Your task to perform on an android device: toggle javascript in the chrome app Image 0: 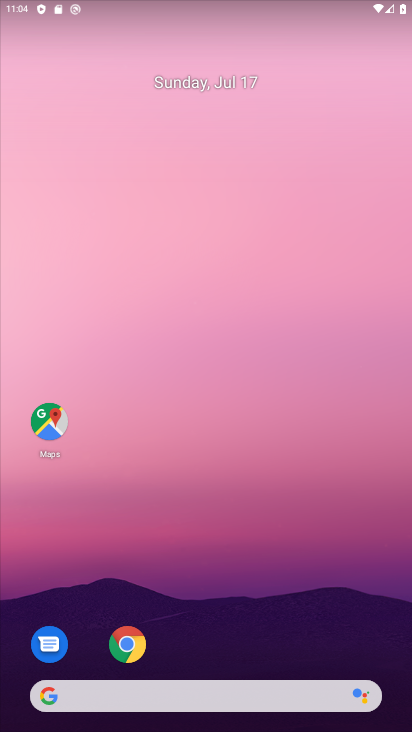
Step 0: drag from (256, 417) to (250, 214)
Your task to perform on an android device: toggle javascript in the chrome app Image 1: 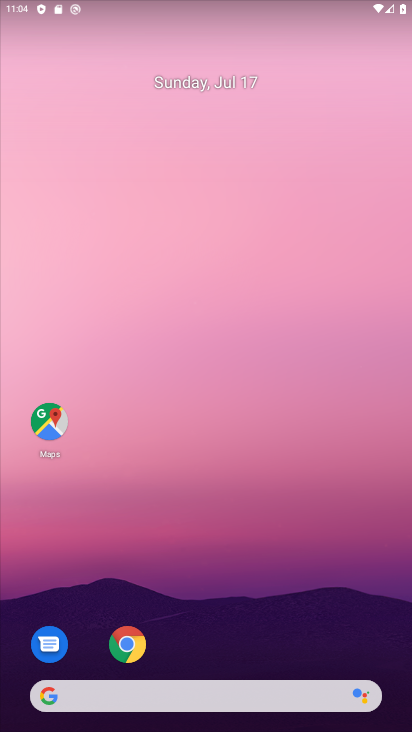
Step 1: drag from (307, 585) to (260, 39)
Your task to perform on an android device: toggle javascript in the chrome app Image 2: 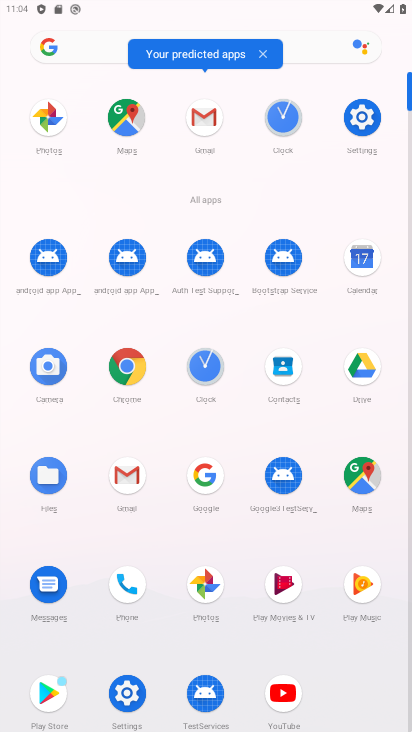
Step 2: click (126, 378)
Your task to perform on an android device: toggle javascript in the chrome app Image 3: 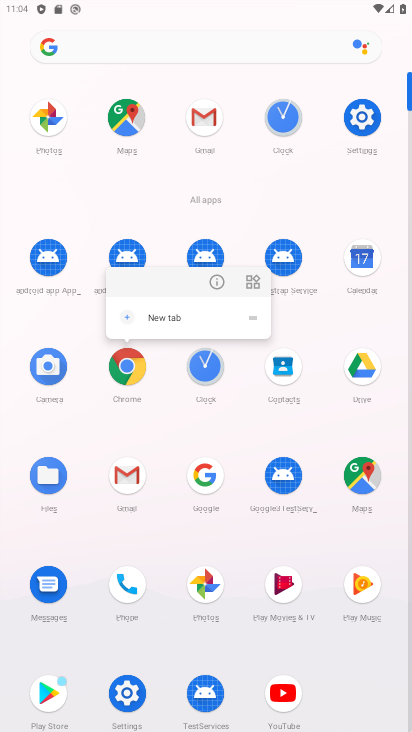
Step 3: click (127, 371)
Your task to perform on an android device: toggle javascript in the chrome app Image 4: 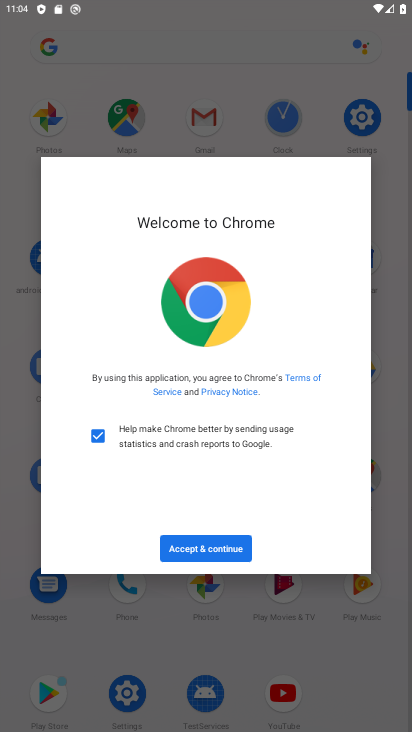
Step 4: click (184, 548)
Your task to perform on an android device: toggle javascript in the chrome app Image 5: 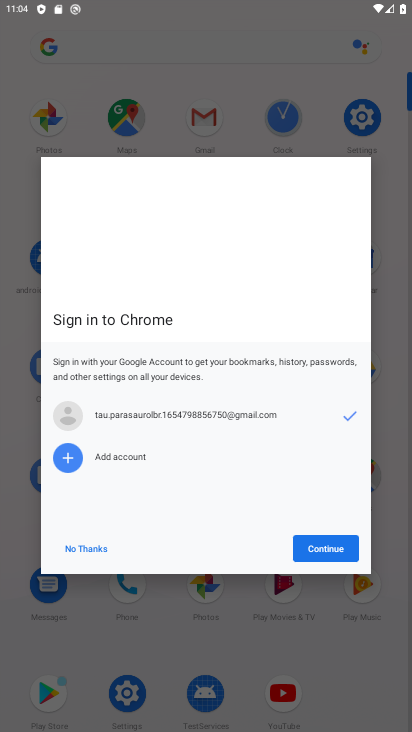
Step 5: click (345, 556)
Your task to perform on an android device: toggle javascript in the chrome app Image 6: 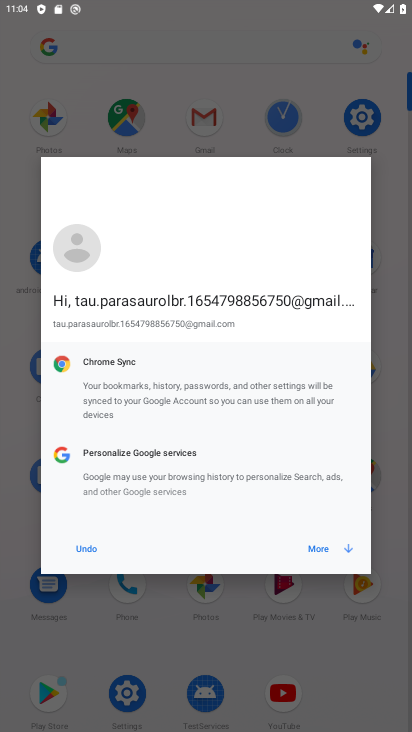
Step 6: click (334, 549)
Your task to perform on an android device: toggle javascript in the chrome app Image 7: 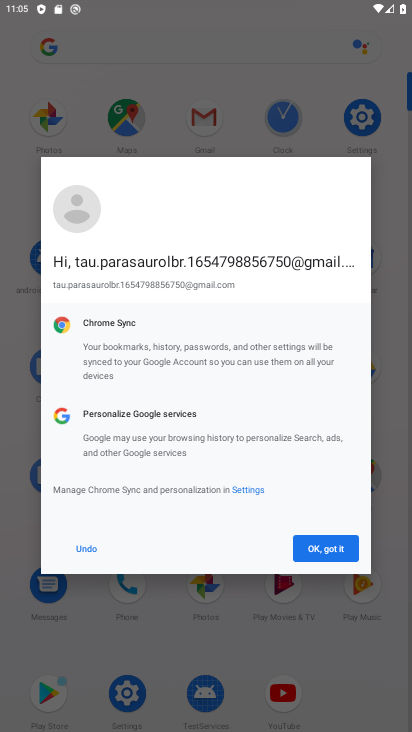
Step 7: click (334, 549)
Your task to perform on an android device: toggle javascript in the chrome app Image 8: 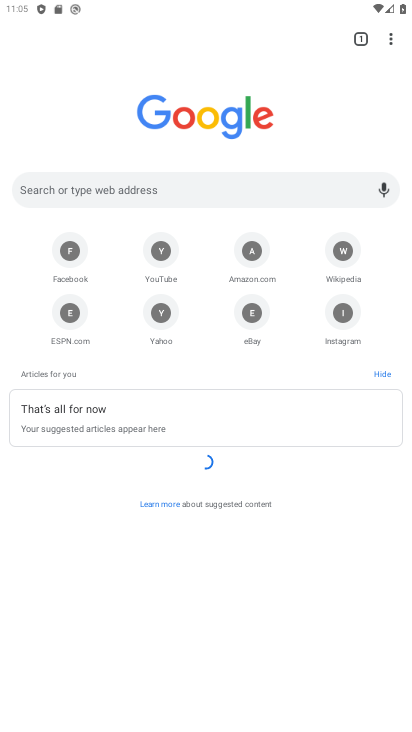
Step 8: drag from (397, 32) to (263, 337)
Your task to perform on an android device: toggle javascript in the chrome app Image 9: 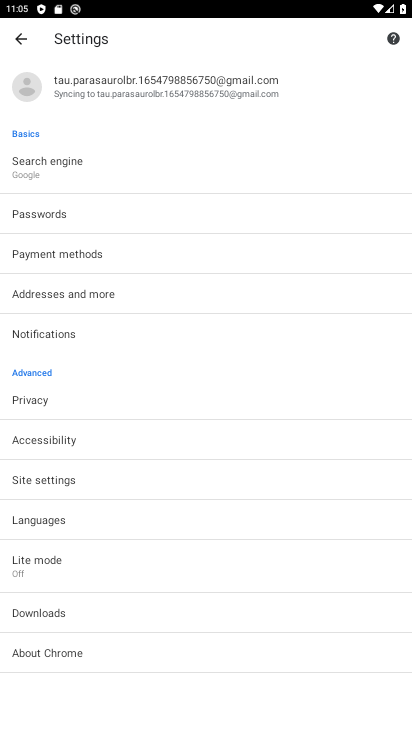
Step 9: click (65, 474)
Your task to perform on an android device: toggle javascript in the chrome app Image 10: 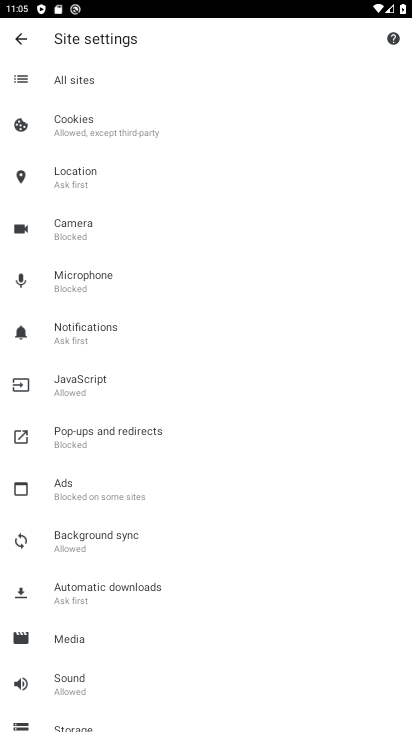
Step 10: click (109, 396)
Your task to perform on an android device: toggle javascript in the chrome app Image 11: 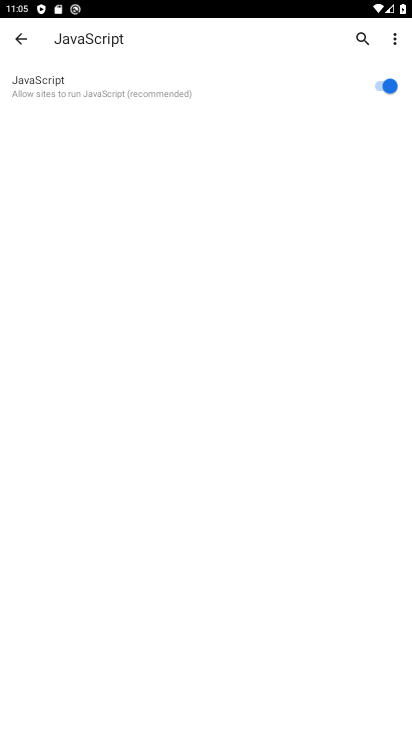
Step 11: click (390, 85)
Your task to perform on an android device: toggle javascript in the chrome app Image 12: 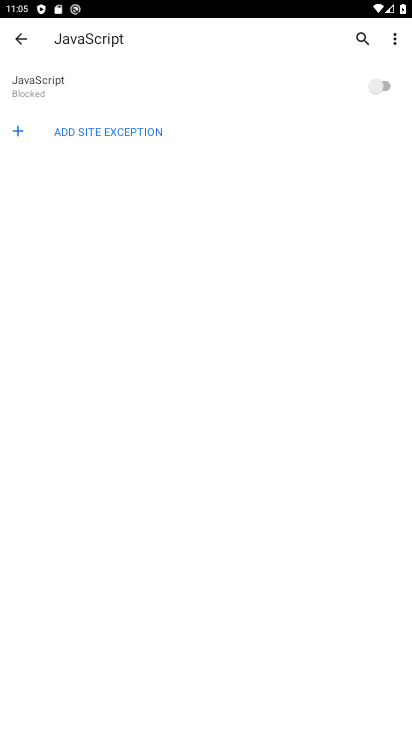
Step 12: task complete